Your task to perform on an android device: check battery use Image 0: 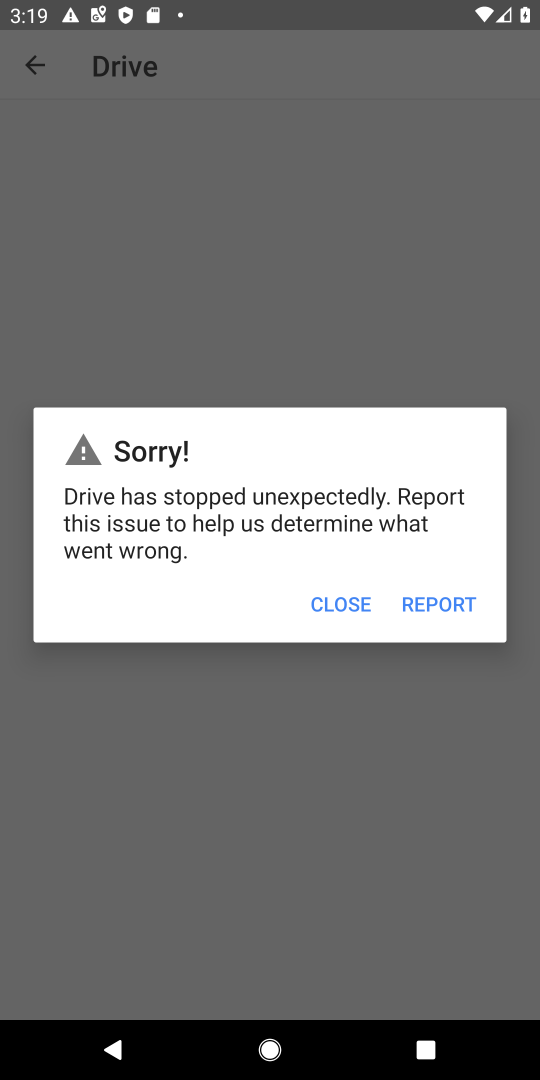
Step 0: press back button
Your task to perform on an android device: check battery use Image 1: 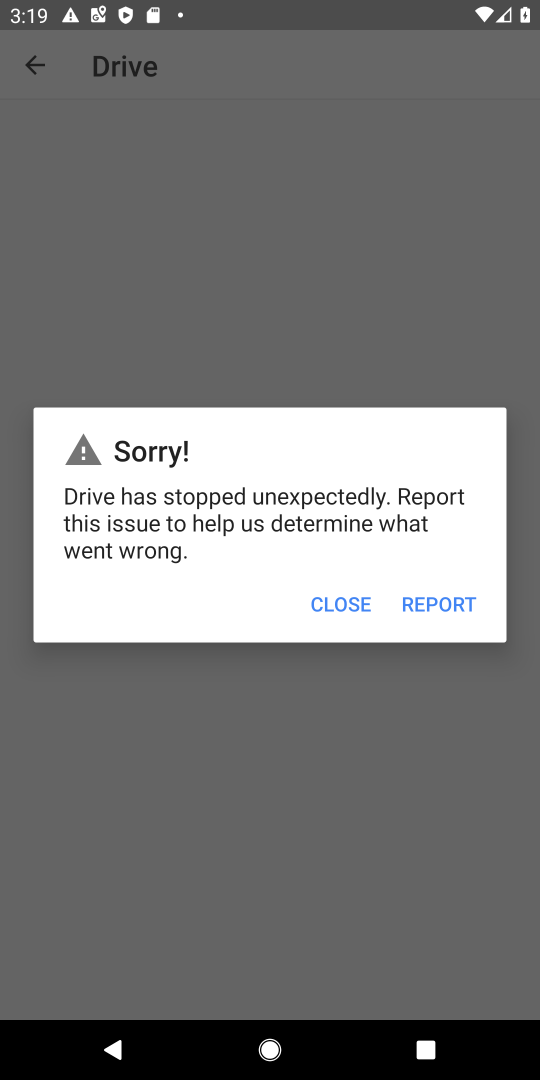
Step 1: press home button
Your task to perform on an android device: check battery use Image 2: 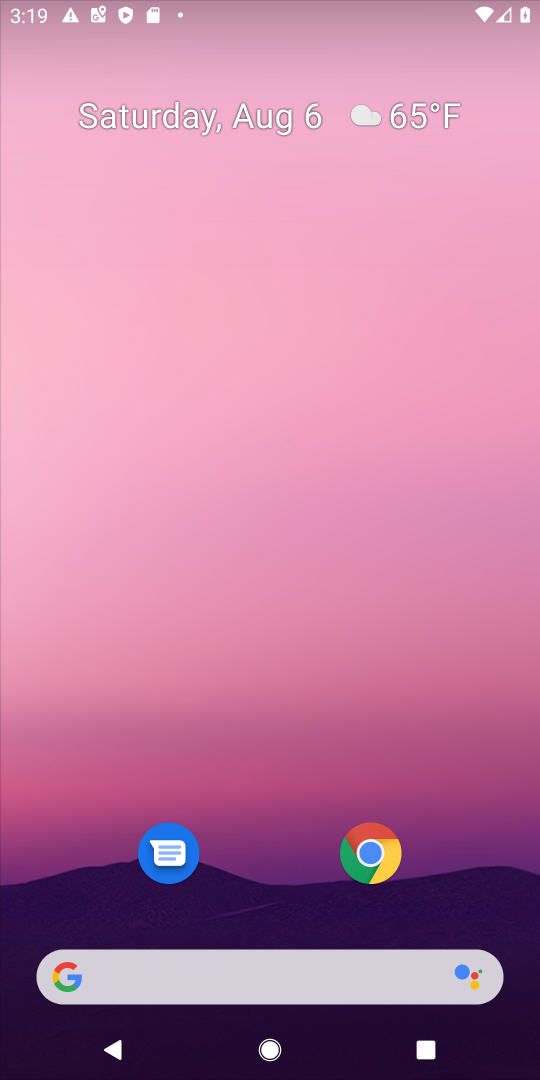
Step 2: drag from (286, 828) to (272, 1)
Your task to perform on an android device: check battery use Image 3: 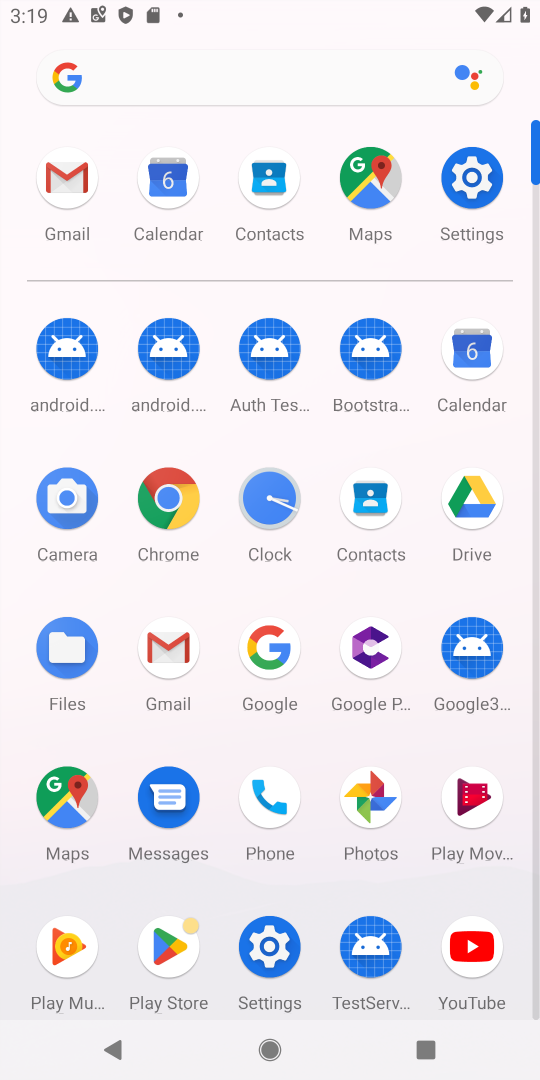
Step 3: click (482, 265)
Your task to perform on an android device: check battery use Image 4: 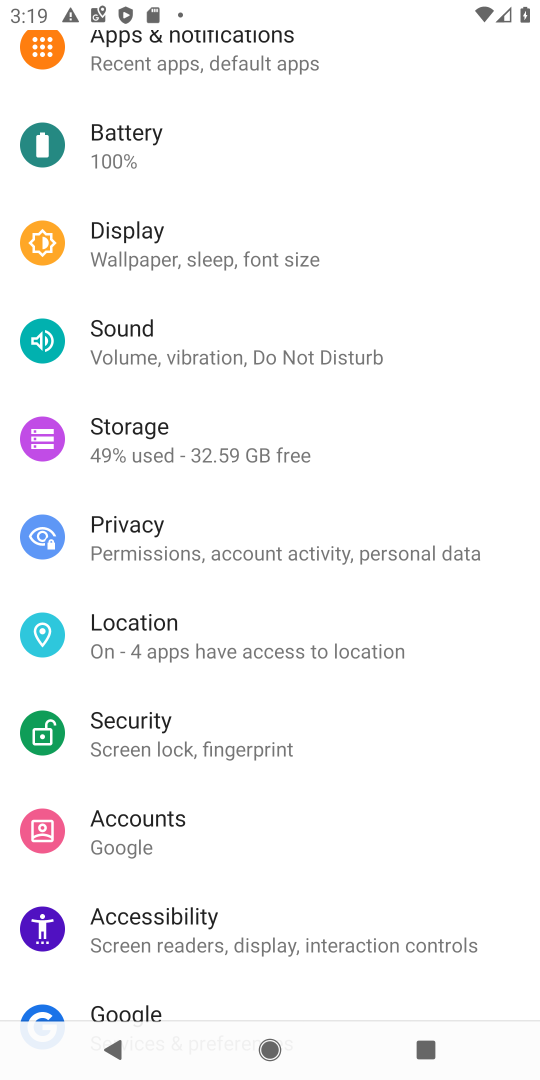
Step 4: click (155, 144)
Your task to perform on an android device: check battery use Image 5: 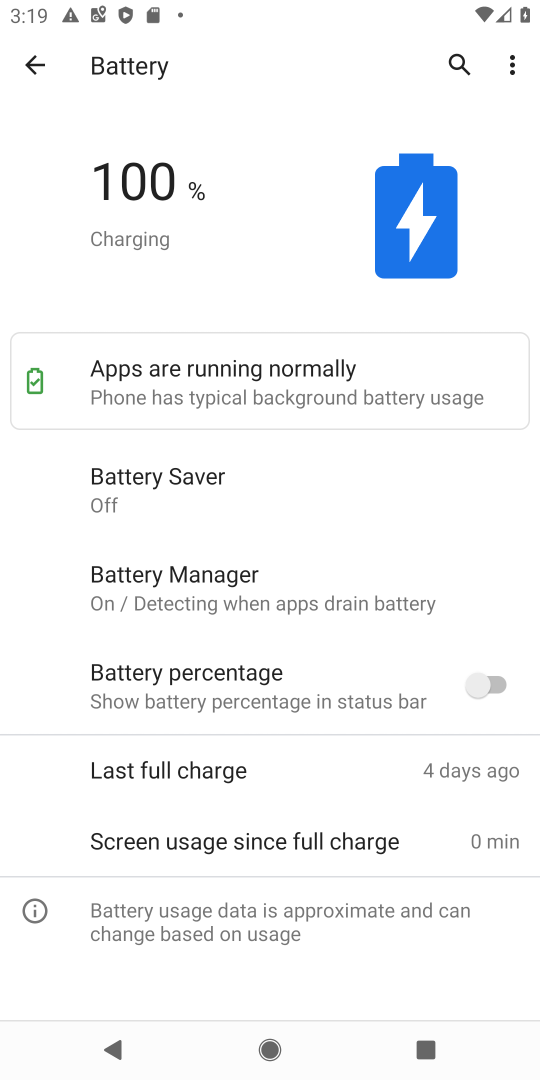
Step 5: click (512, 65)
Your task to perform on an android device: check battery use Image 6: 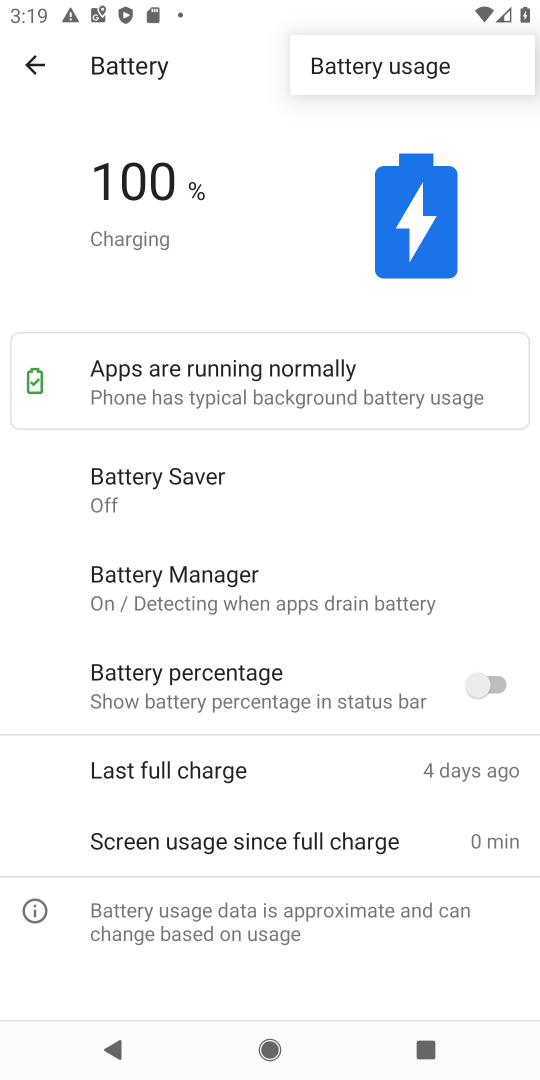
Step 6: click (491, 75)
Your task to perform on an android device: check battery use Image 7: 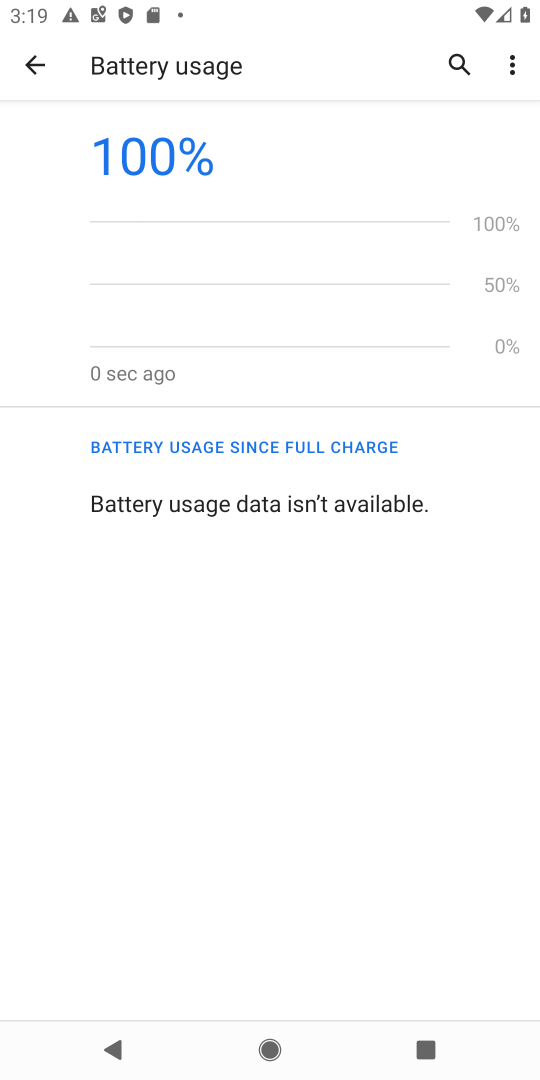
Step 7: task complete